Your task to perform on an android device: turn off notifications in google photos Image 0: 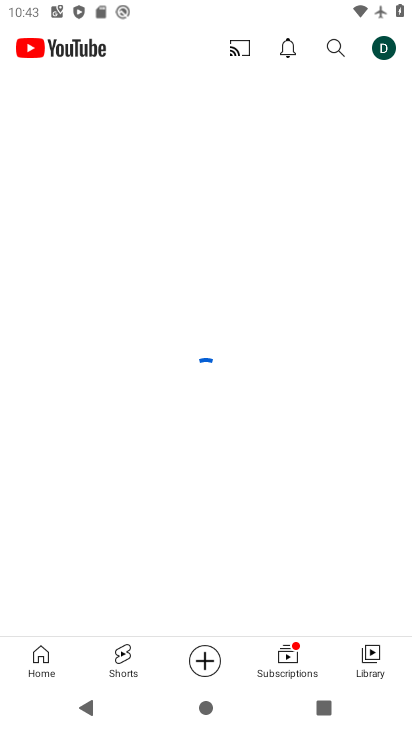
Step 0: press home button
Your task to perform on an android device: turn off notifications in google photos Image 1: 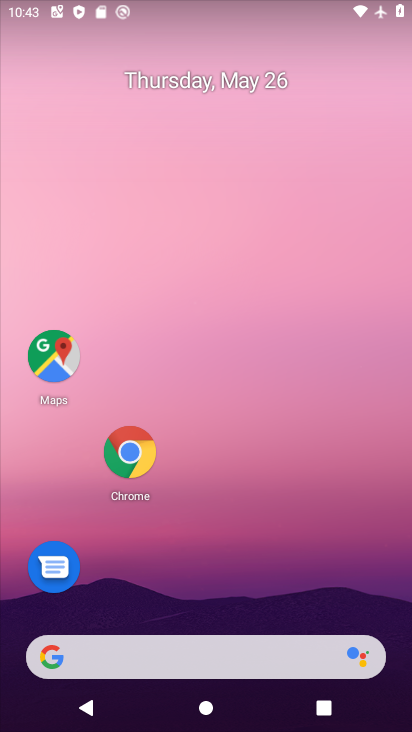
Step 1: drag from (213, 663) to (286, 146)
Your task to perform on an android device: turn off notifications in google photos Image 2: 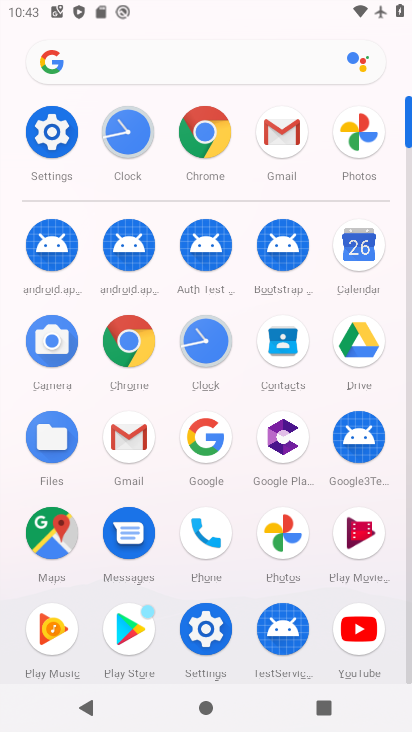
Step 2: click (291, 539)
Your task to perform on an android device: turn off notifications in google photos Image 3: 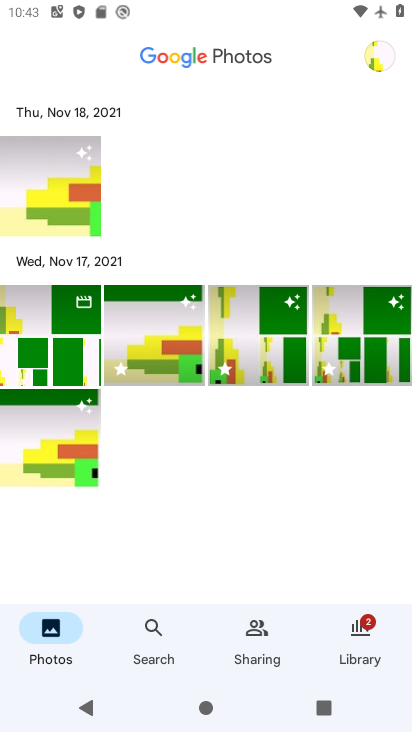
Step 3: click (375, 64)
Your task to perform on an android device: turn off notifications in google photos Image 4: 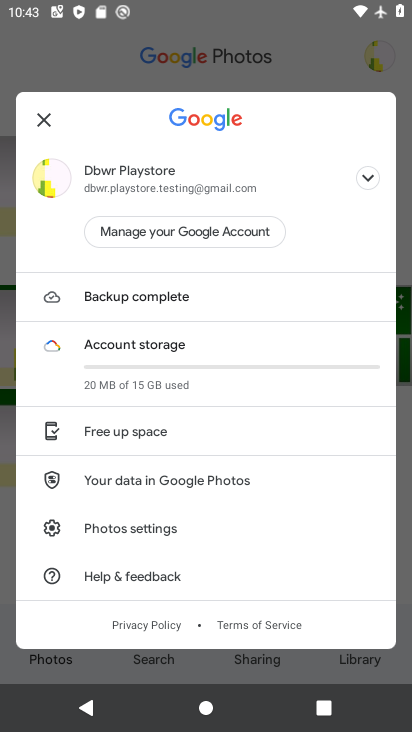
Step 4: click (159, 533)
Your task to perform on an android device: turn off notifications in google photos Image 5: 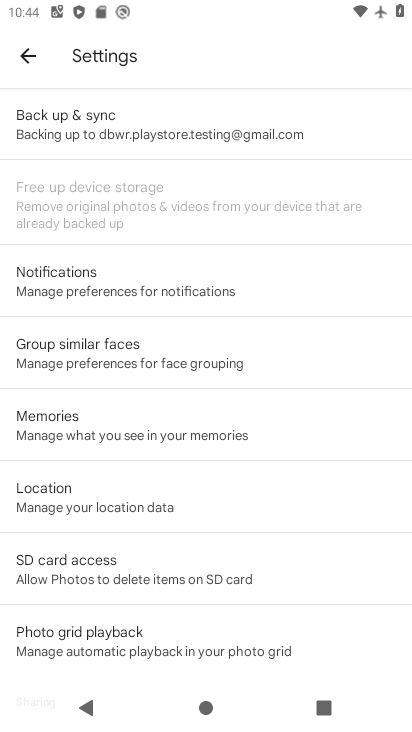
Step 5: click (136, 292)
Your task to perform on an android device: turn off notifications in google photos Image 6: 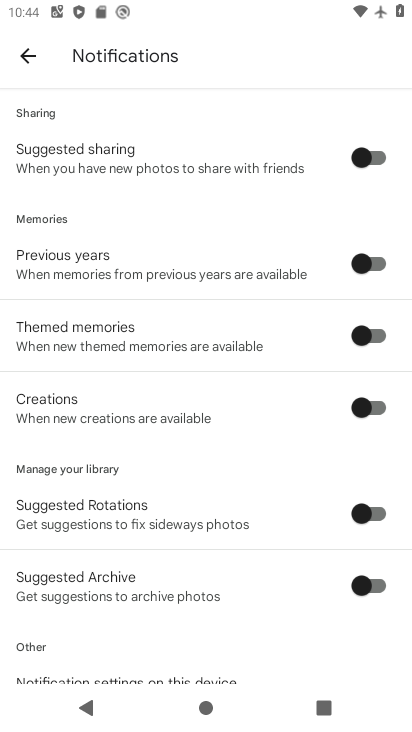
Step 6: drag from (170, 640) to (328, 260)
Your task to perform on an android device: turn off notifications in google photos Image 7: 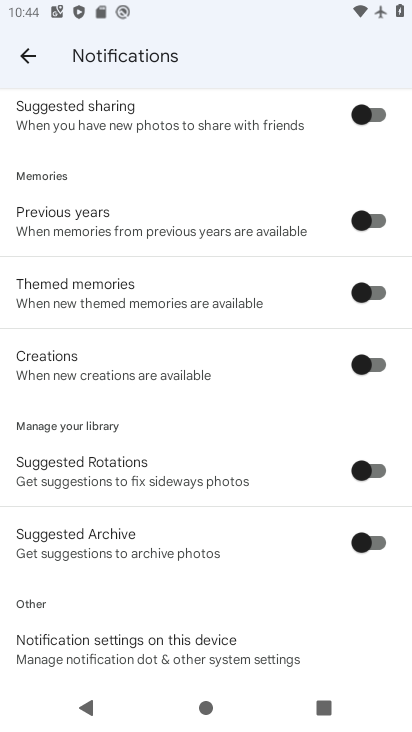
Step 7: click (90, 653)
Your task to perform on an android device: turn off notifications in google photos Image 8: 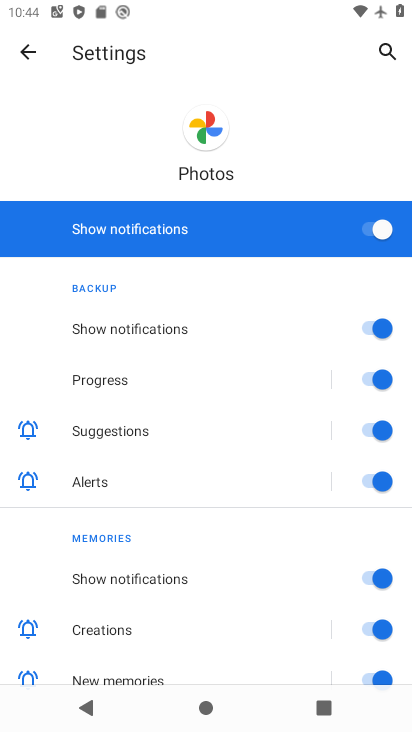
Step 8: click (372, 228)
Your task to perform on an android device: turn off notifications in google photos Image 9: 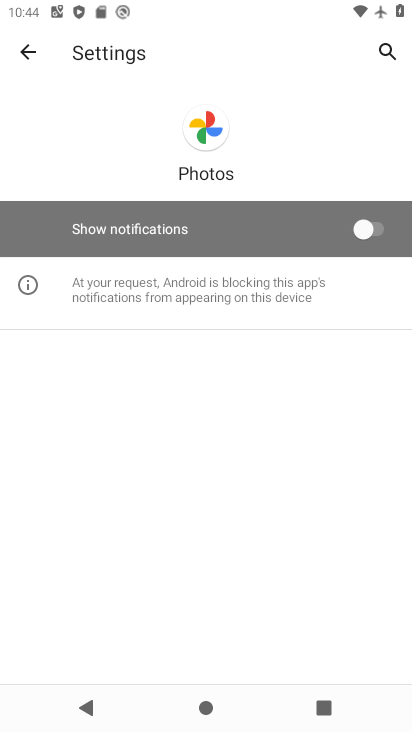
Step 9: task complete